Your task to perform on an android device: Open the map Image 0: 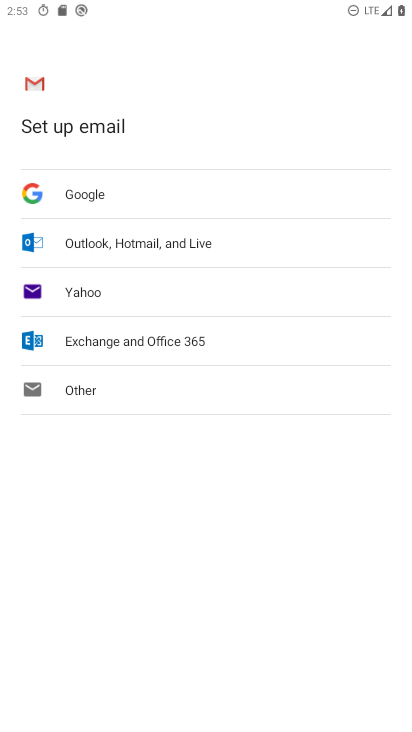
Step 0: press home button
Your task to perform on an android device: Open the map Image 1: 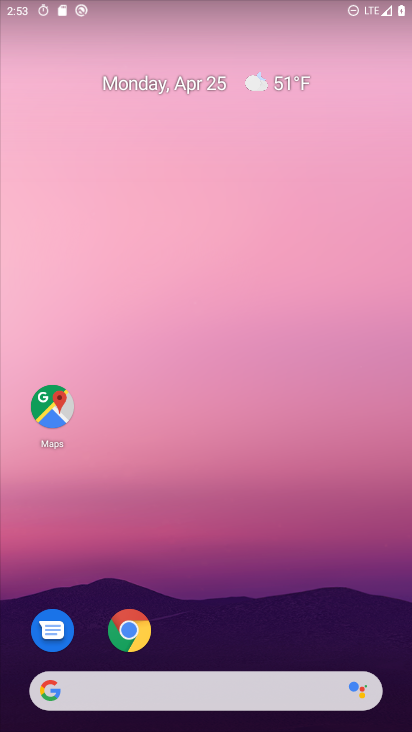
Step 1: click (44, 396)
Your task to perform on an android device: Open the map Image 2: 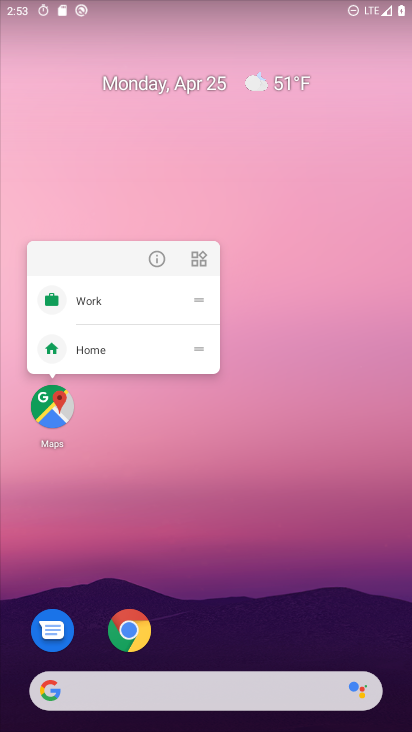
Step 2: click (162, 256)
Your task to perform on an android device: Open the map Image 3: 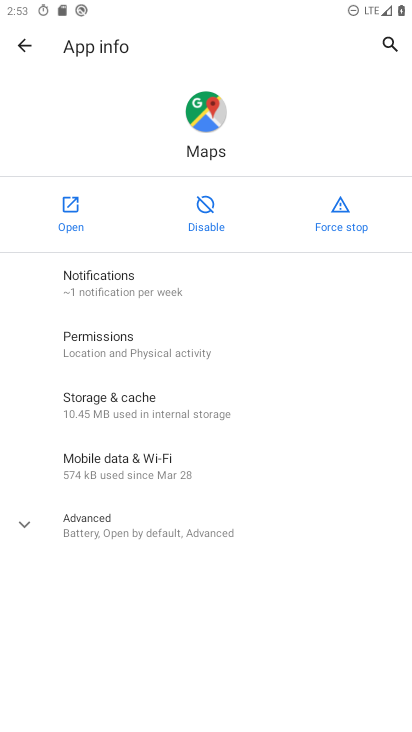
Step 3: click (80, 219)
Your task to perform on an android device: Open the map Image 4: 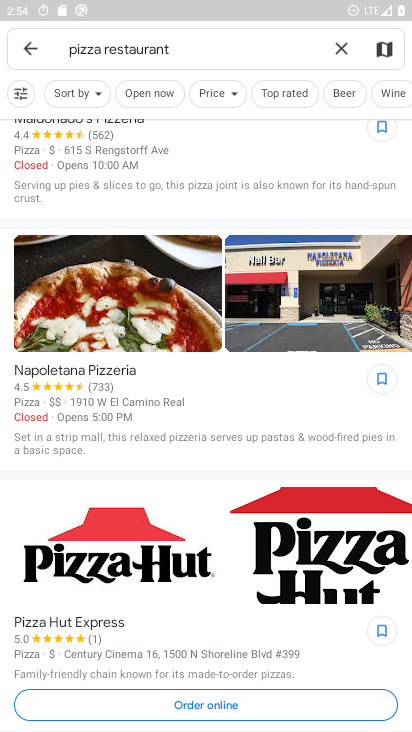
Step 4: task complete